Your task to perform on an android device: Search for sushi restaurants on Maps Image 0: 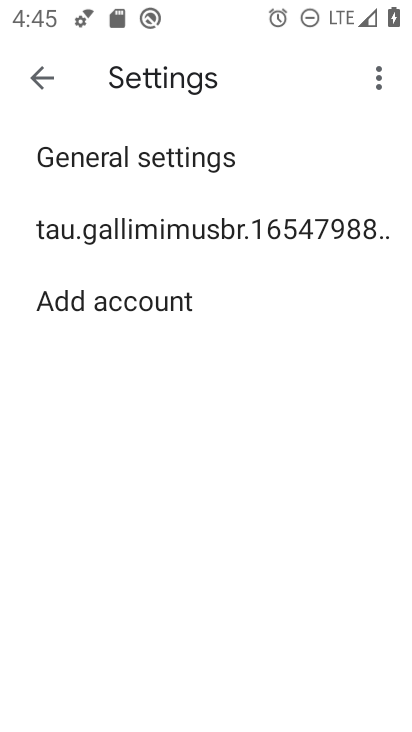
Step 0: press back button
Your task to perform on an android device: Search for sushi restaurants on Maps Image 1: 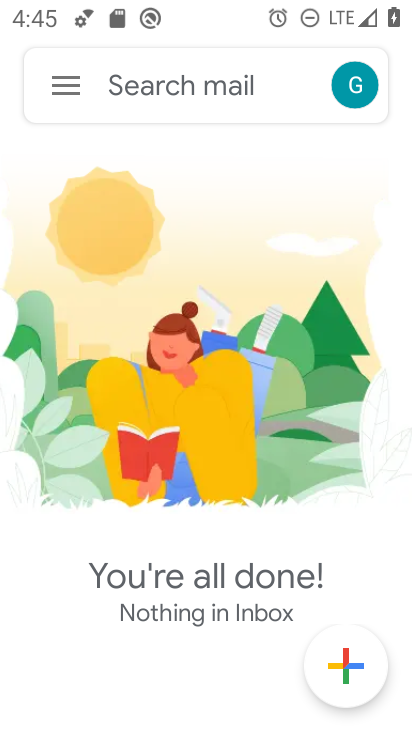
Step 1: press back button
Your task to perform on an android device: Search for sushi restaurants on Maps Image 2: 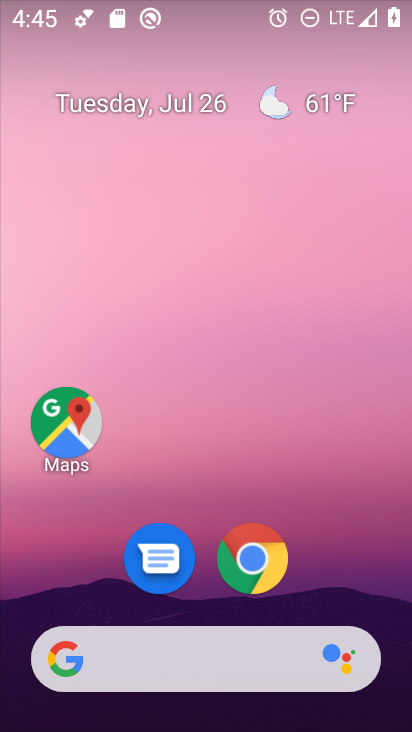
Step 2: click (43, 416)
Your task to perform on an android device: Search for sushi restaurants on Maps Image 3: 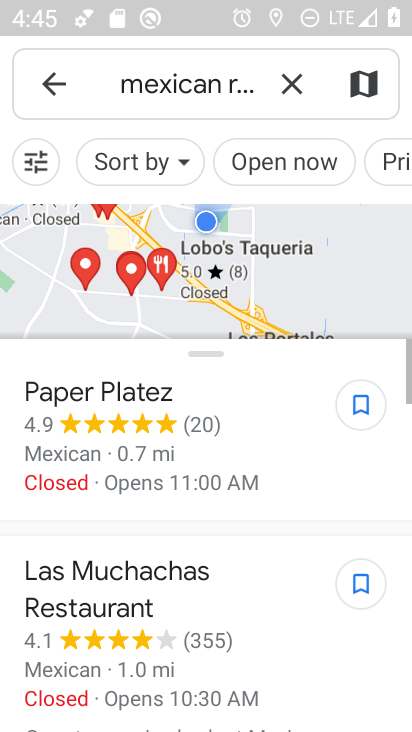
Step 3: click (285, 82)
Your task to perform on an android device: Search for sushi restaurants on Maps Image 4: 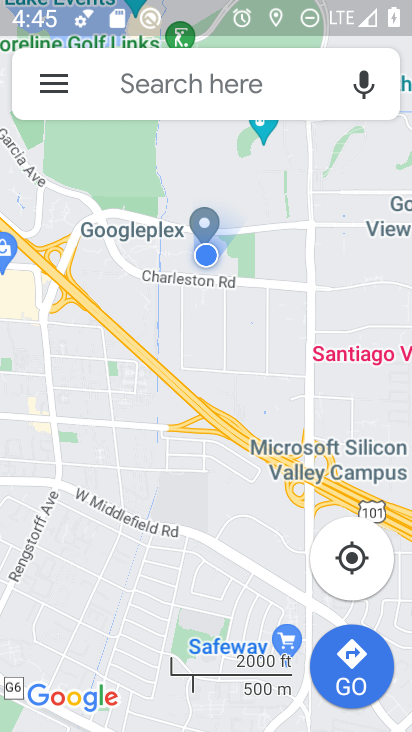
Step 4: click (195, 93)
Your task to perform on an android device: Search for sushi restaurants on Maps Image 5: 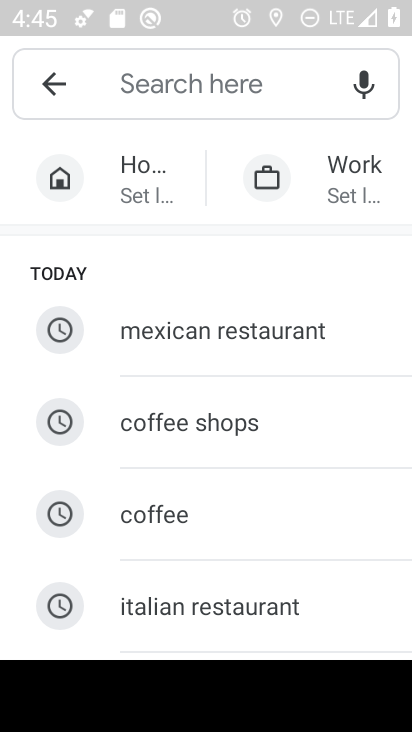
Step 5: drag from (188, 555) to (259, 194)
Your task to perform on an android device: Search for sushi restaurants on Maps Image 6: 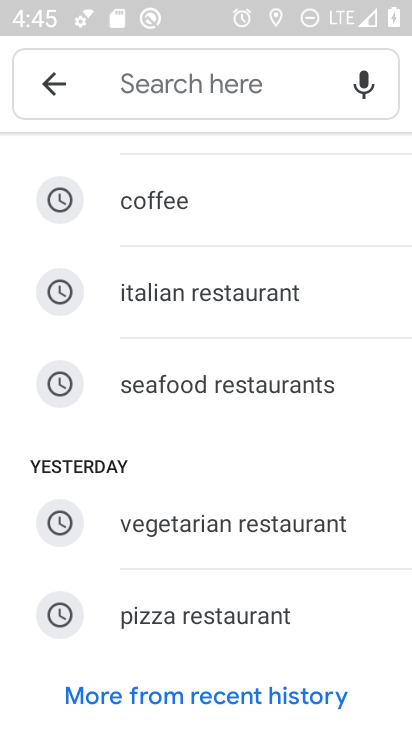
Step 6: click (156, 88)
Your task to perform on an android device: Search for sushi restaurants on Maps Image 7: 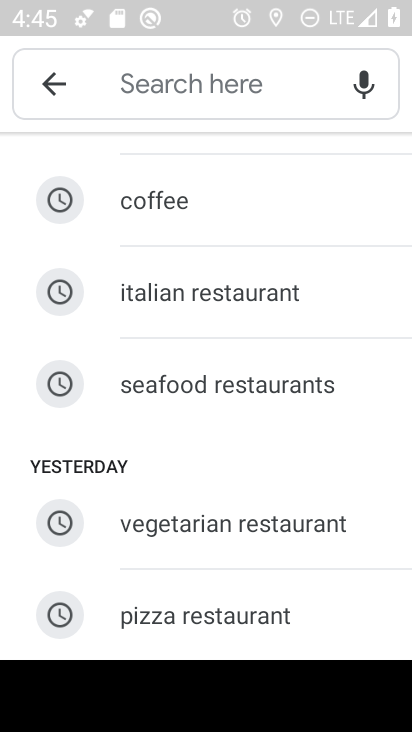
Step 7: type "sushi restaurants"
Your task to perform on an android device: Search for sushi restaurants on Maps Image 8: 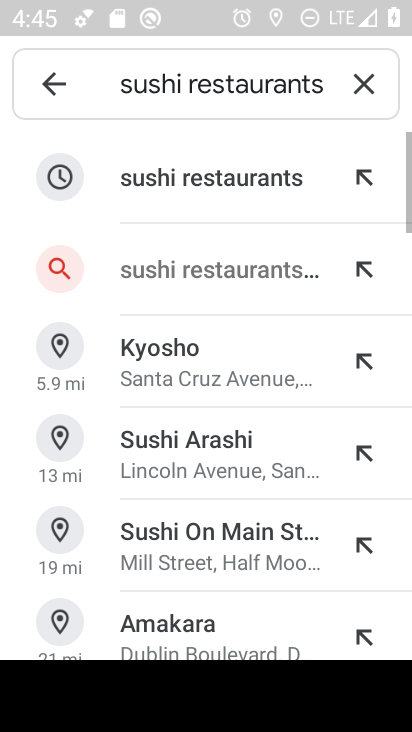
Step 8: click (238, 176)
Your task to perform on an android device: Search for sushi restaurants on Maps Image 9: 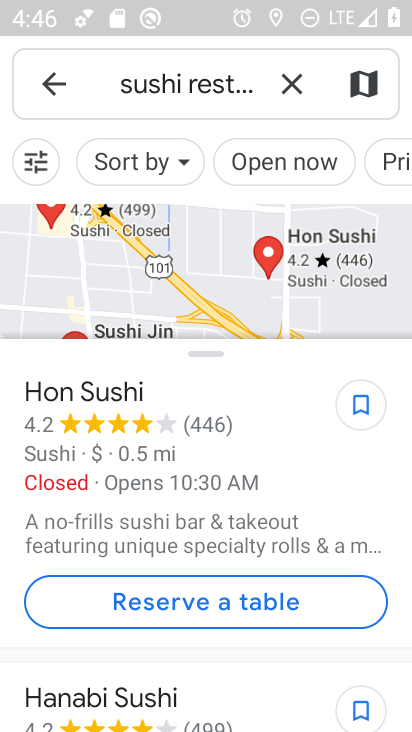
Step 9: task complete